Your task to perform on an android device: What's the weather going to be this weekend? Image 0: 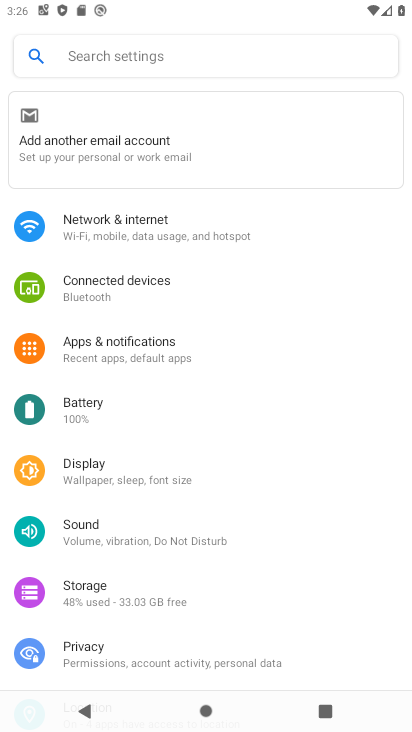
Step 0: press back button
Your task to perform on an android device: What's the weather going to be this weekend? Image 1: 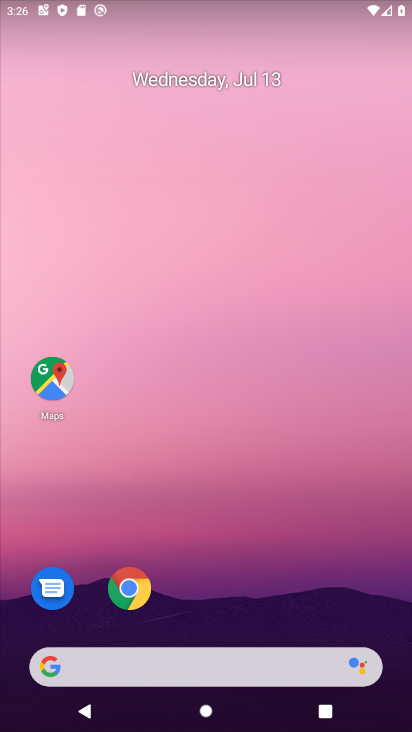
Step 1: drag from (284, 661) to (213, 219)
Your task to perform on an android device: What's the weather going to be this weekend? Image 2: 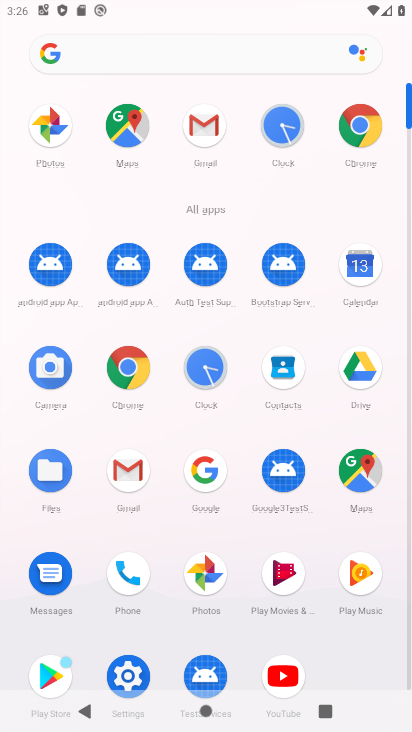
Step 2: click (284, 662)
Your task to perform on an android device: What's the weather going to be this weekend? Image 3: 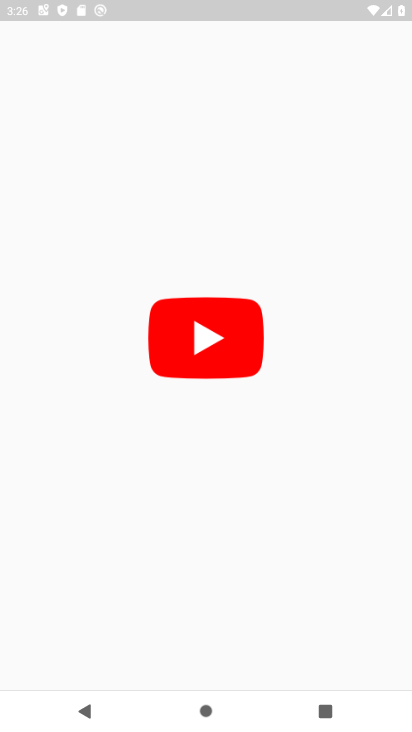
Step 3: press back button
Your task to perform on an android device: What's the weather going to be this weekend? Image 4: 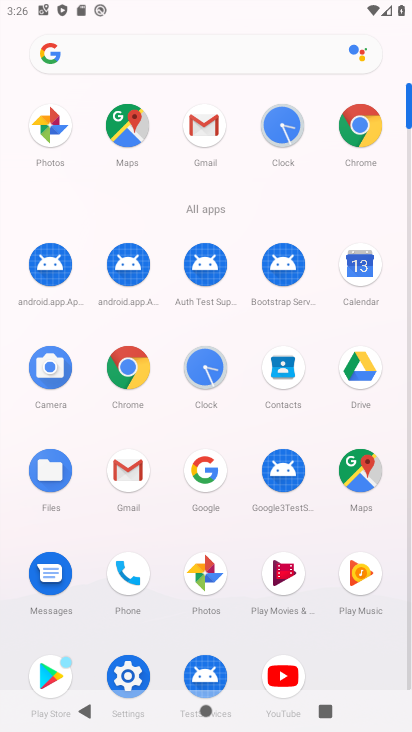
Step 4: click (358, 128)
Your task to perform on an android device: What's the weather going to be this weekend? Image 5: 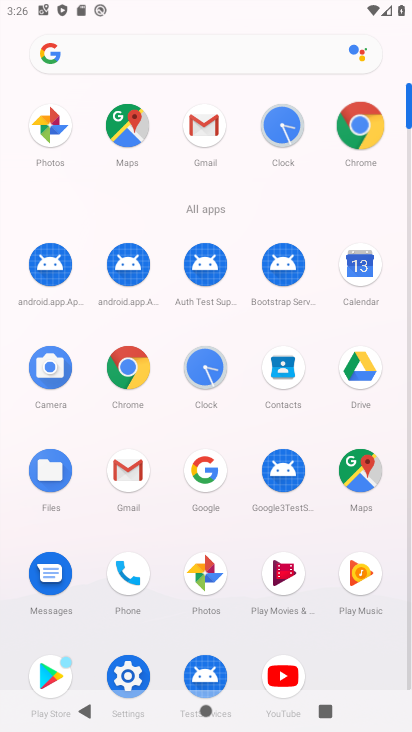
Step 5: click (366, 120)
Your task to perform on an android device: What's the weather going to be this weekend? Image 6: 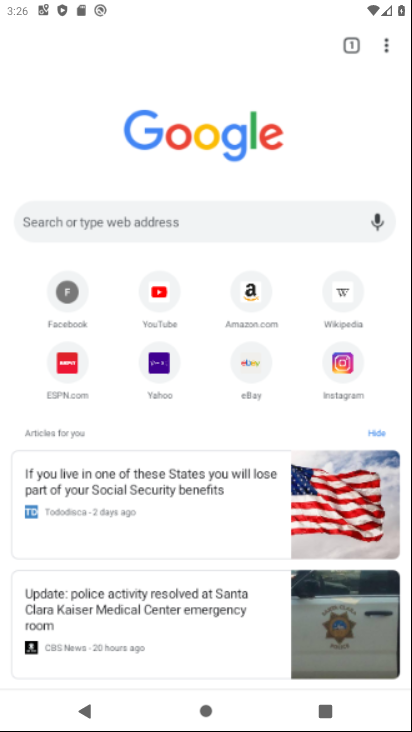
Step 6: click (371, 117)
Your task to perform on an android device: What's the weather going to be this weekend? Image 7: 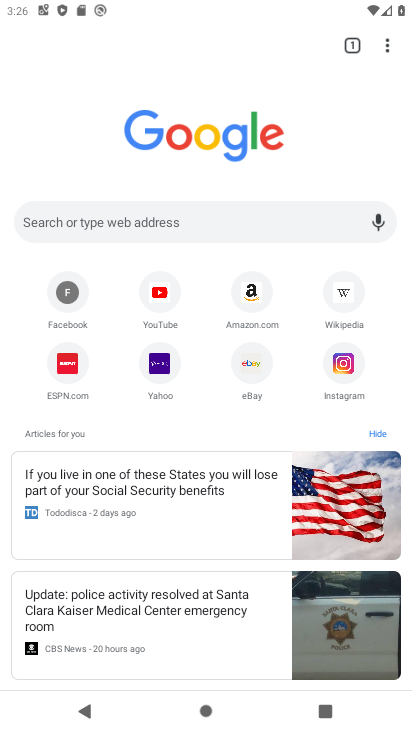
Step 7: drag from (34, 152) to (376, 248)
Your task to perform on an android device: What's the weather going to be this weekend? Image 8: 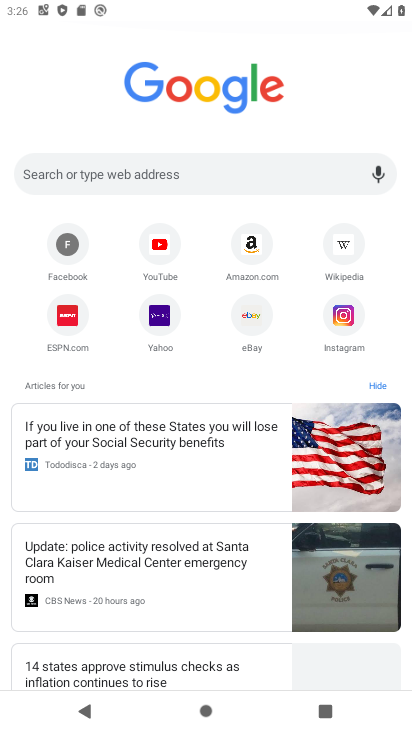
Step 8: drag from (180, 175) to (411, 232)
Your task to perform on an android device: What's the weather going to be this weekend? Image 9: 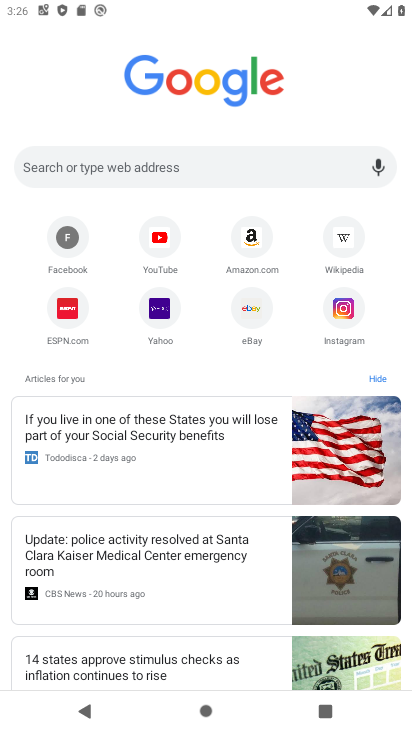
Step 9: click (69, 168)
Your task to perform on an android device: What's the weather going to be this weekend? Image 10: 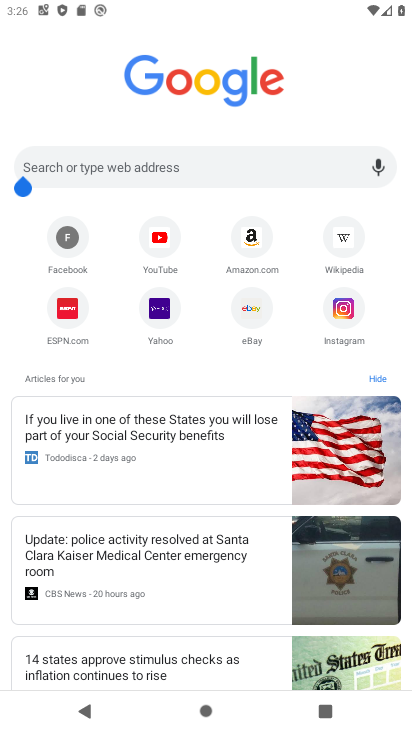
Step 10: click (77, 184)
Your task to perform on an android device: What's the weather going to be this weekend? Image 11: 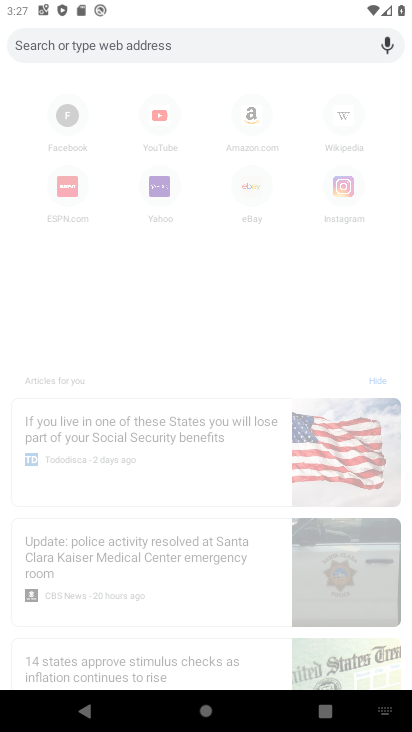
Step 11: type "what;w the weatyer to be this weeekend"
Your task to perform on an android device: What's the weather going to be this weekend? Image 12: 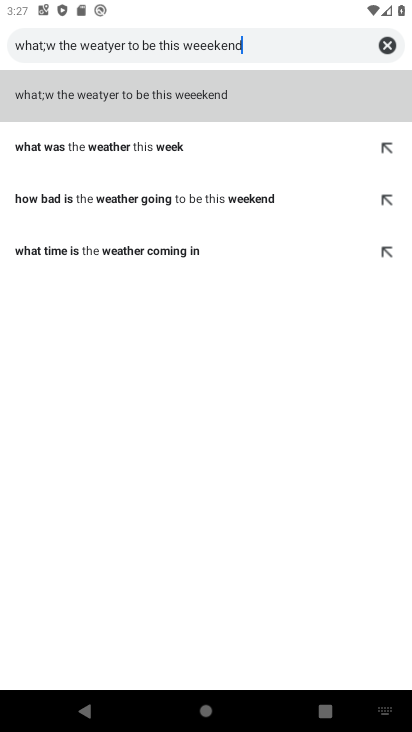
Step 12: click (157, 94)
Your task to perform on an android device: What's the weather going to be this weekend? Image 13: 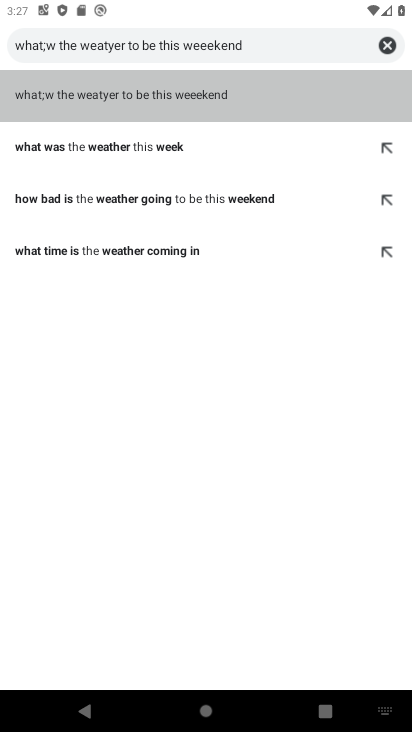
Step 13: click (157, 94)
Your task to perform on an android device: What's the weather going to be this weekend? Image 14: 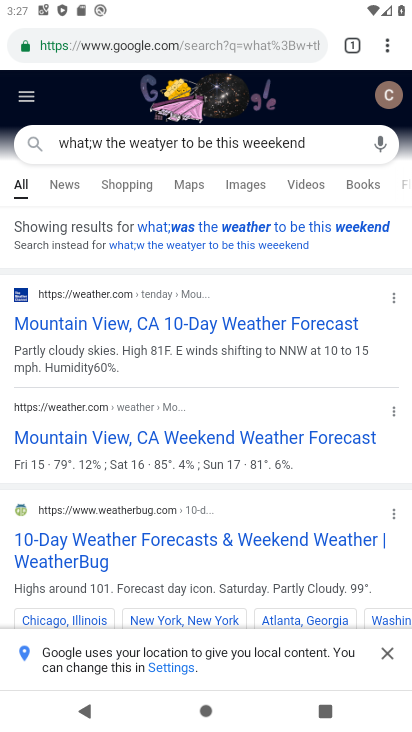
Step 14: task complete